Your task to perform on an android device: turn off notifications settings in the gmail app Image 0: 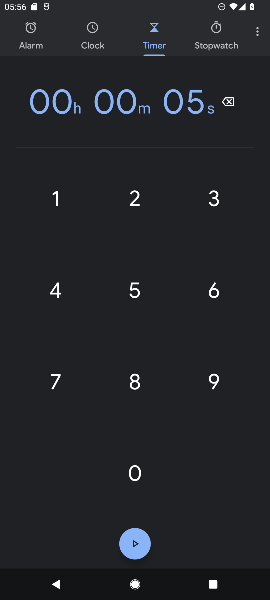
Step 0: press home button
Your task to perform on an android device: turn off notifications settings in the gmail app Image 1: 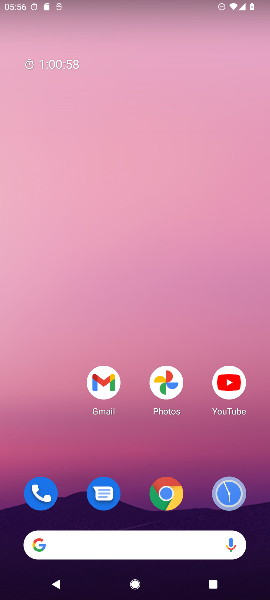
Step 1: drag from (59, 392) to (64, 133)
Your task to perform on an android device: turn off notifications settings in the gmail app Image 2: 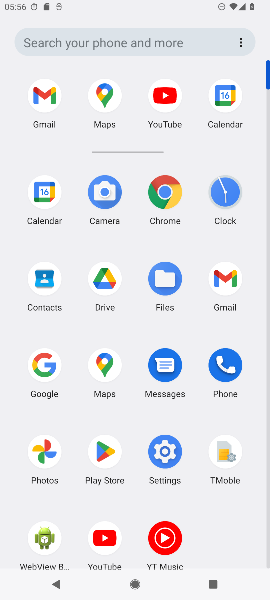
Step 2: click (226, 280)
Your task to perform on an android device: turn off notifications settings in the gmail app Image 3: 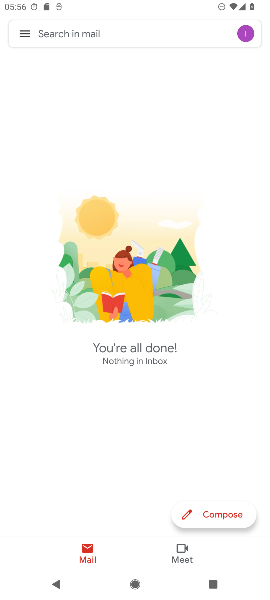
Step 3: click (25, 31)
Your task to perform on an android device: turn off notifications settings in the gmail app Image 4: 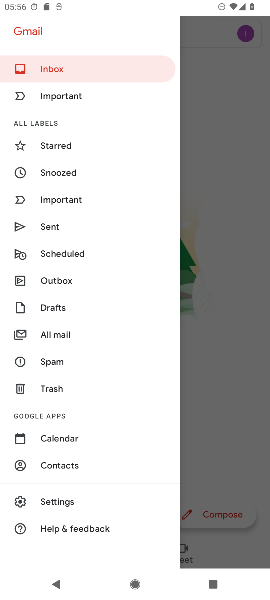
Step 4: click (89, 500)
Your task to perform on an android device: turn off notifications settings in the gmail app Image 5: 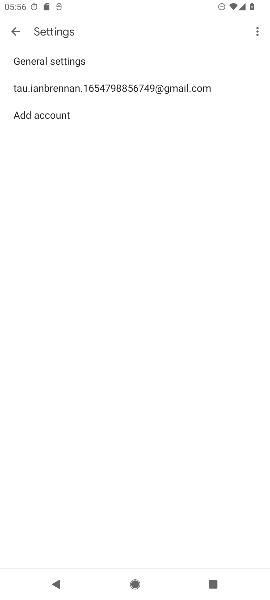
Step 5: click (143, 90)
Your task to perform on an android device: turn off notifications settings in the gmail app Image 6: 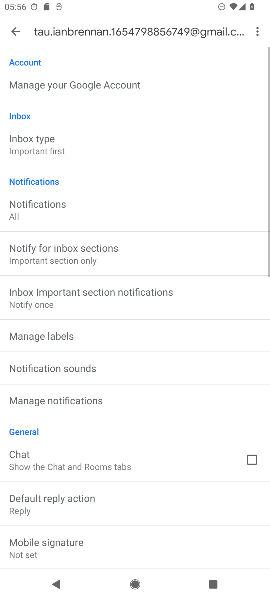
Step 6: drag from (231, 315) to (228, 246)
Your task to perform on an android device: turn off notifications settings in the gmail app Image 7: 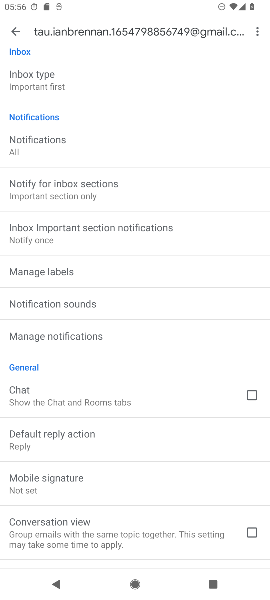
Step 7: drag from (193, 360) to (199, 285)
Your task to perform on an android device: turn off notifications settings in the gmail app Image 8: 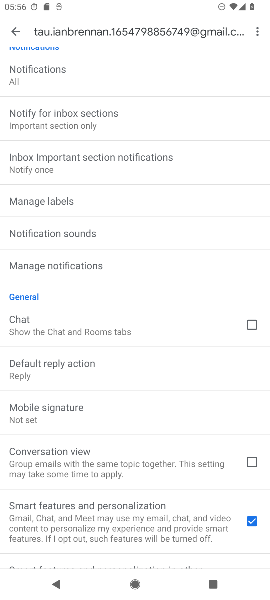
Step 8: drag from (187, 388) to (186, 290)
Your task to perform on an android device: turn off notifications settings in the gmail app Image 9: 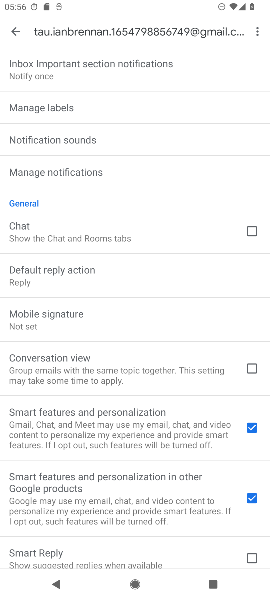
Step 9: drag from (179, 443) to (183, 315)
Your task to perform on an android device: turn off notifications settings in the gmail app Image 10: 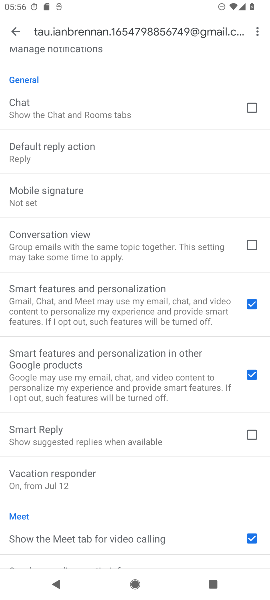
Step 10: drag from (192, 434) to (193, 309)
Your task to perform on an android device: turn off notifications settings in the gmail app Image 11: 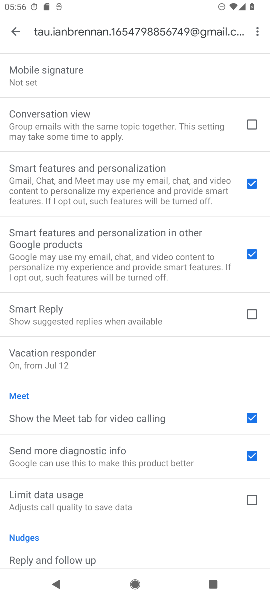
Step 11: drag from (171, 392) to (193, 237)
Your task to perform on an android device: turn off notifications settings in the gmail app Image 12: 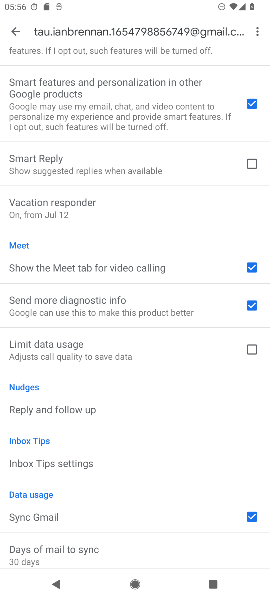
Step 12: drag from (199, 159) to (200, 251)
Your task to perform on an android device: turn off notifications settings in the gmail app Image 13: 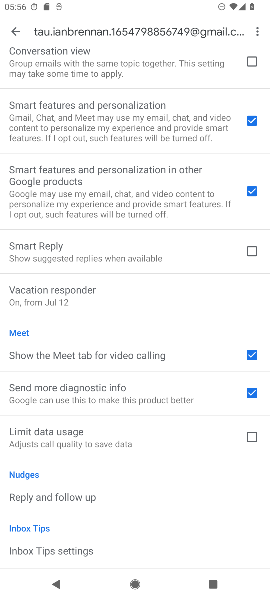
Step 13: drag from (203, 119) to (203, 227)
Your task to perform on an android device: turn off notifications settings in the gmail app Image 14: 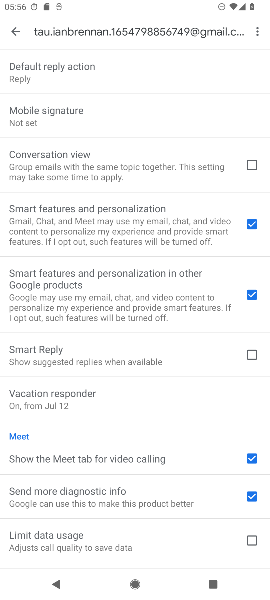
Step 14: drag from (200, 101) to (198, 215)
Your task to perform on an android device: turn off notifications settings in the gmail app Image 15: 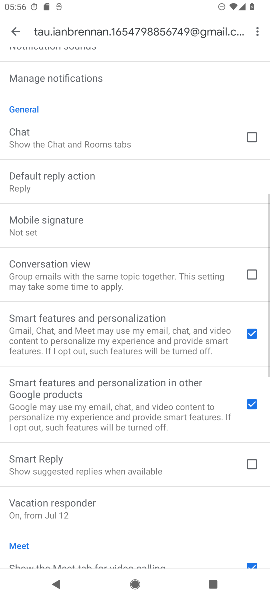
Step 15: drag from (186, 90) to (195, 220)
Your task to perform on an android device: turn off notifications settings in the gmail app Image 16: 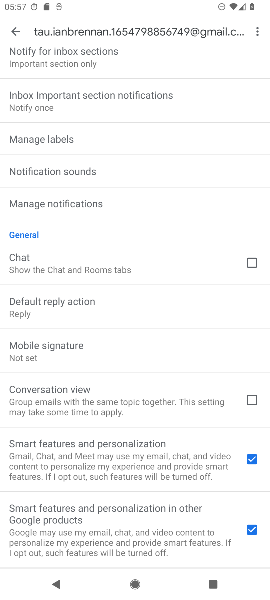
Step 16: drag from (207, 75) to (207, 196)
Your task to perform on an android device: turn off notifications settings in the gmail app Image 17: 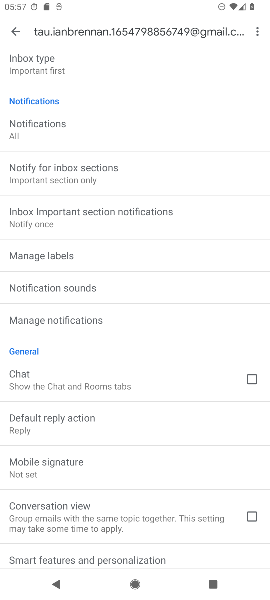
Step 17: click (157, 319)
Your task to perform on an android device: turn off notifications settings in the gmail app Image 18: 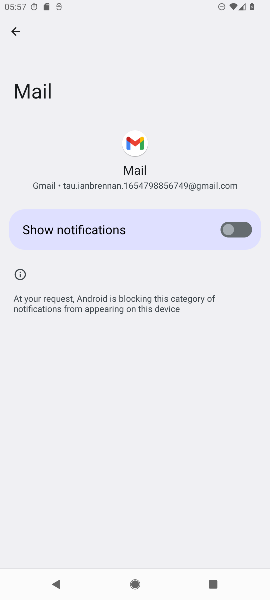
Step 18: task complete